Your task to perform on an android device: Open CNN.com Image 0: 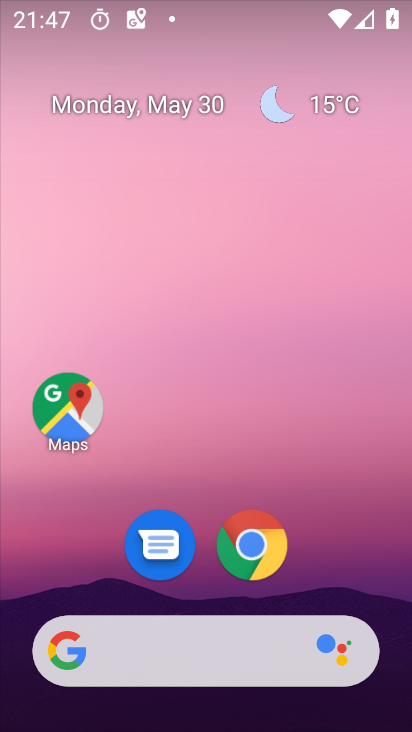
Step 0: click (265, 542)
Your task to perform on an android device: Open CNN.com Image 1: 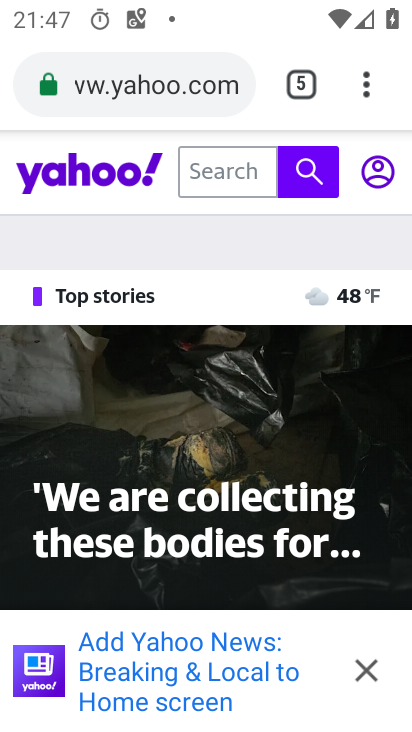
Step 1: click (301, 90)
Your task to perform on an android device: Open CNN.com Image 2: 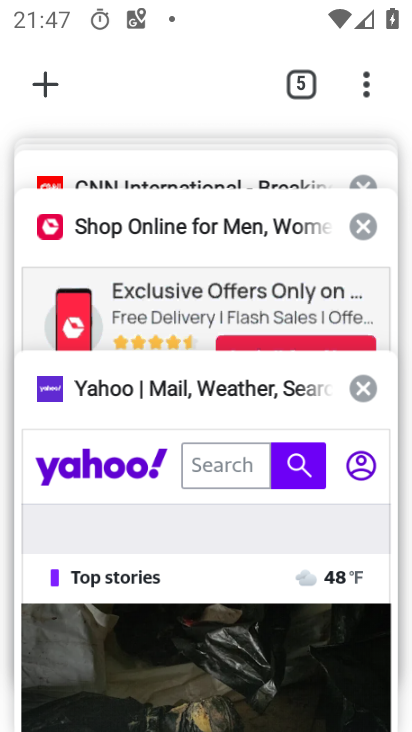
Step 2: drag from (192, 203) to (184, 440)
Your task to perform on an android device: Open CNN.com Image 3: 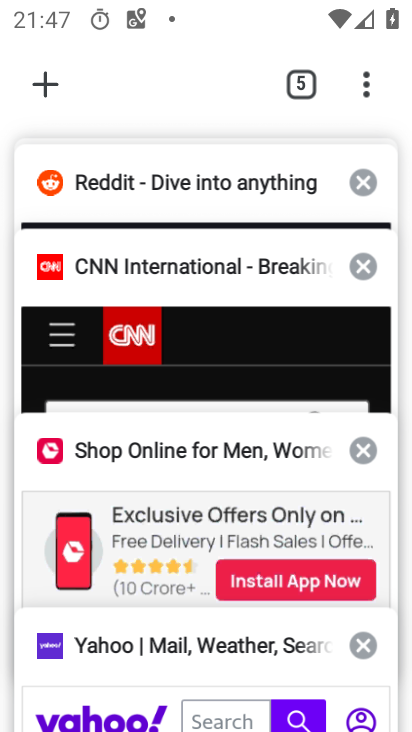
Step 3: click (185, 278)
Your task to perform on an android device: Open CNN.com Image 4: 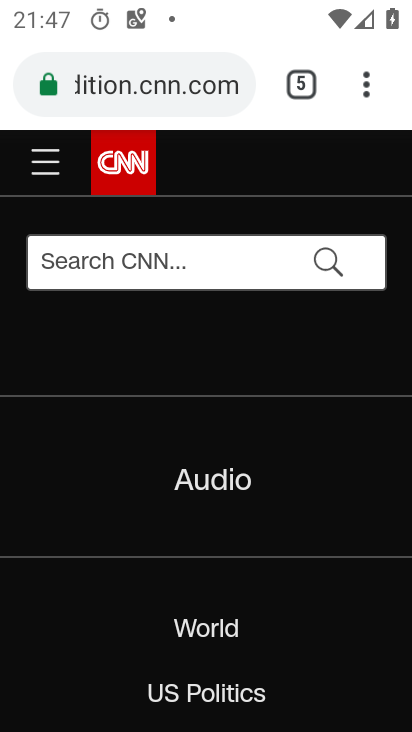
Step 4: task complete